Your task to perform on an android device: open sync settings in chrome Image 0: 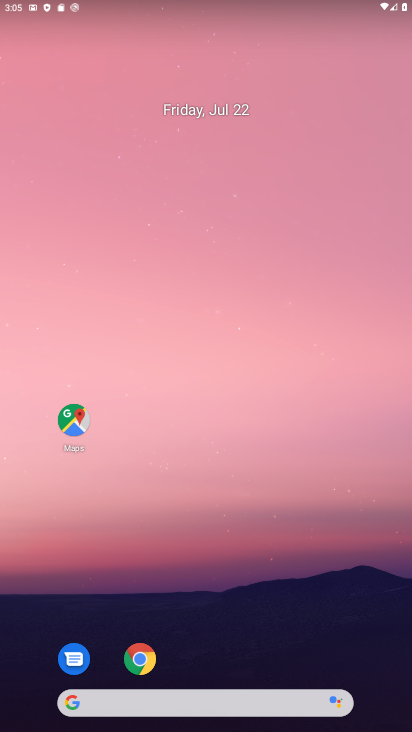
Step 0: click (146, 669)
Your task to perform on an android device: open sync settings in chrome Image 1: 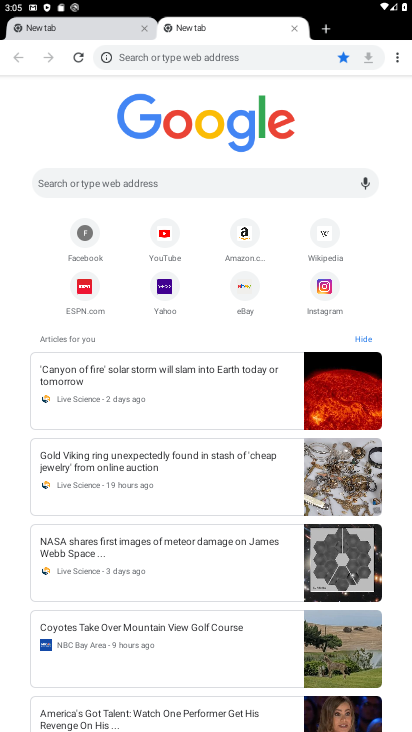
Step 1: click (401, 53)
Your task to perform on an android device: open sync settings in chrome Image 2: 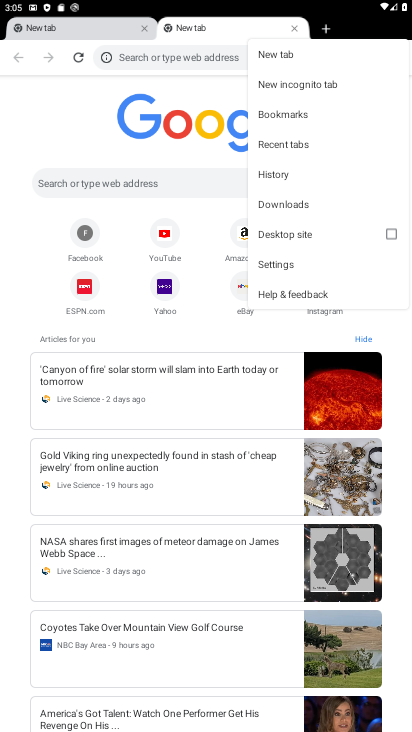
Step 2: click (319, 258)
Your task to perform on an android device: open sync settings in chrome Image 3: 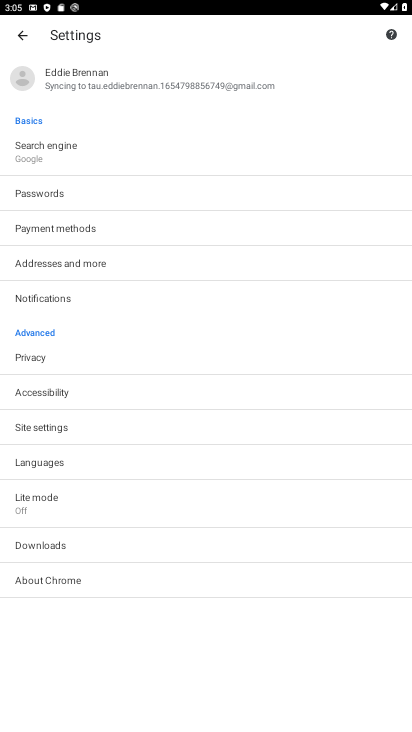
Step 3: click (113, 74)
Your task to perform on an android device: open sync settings in chrome Image 4: 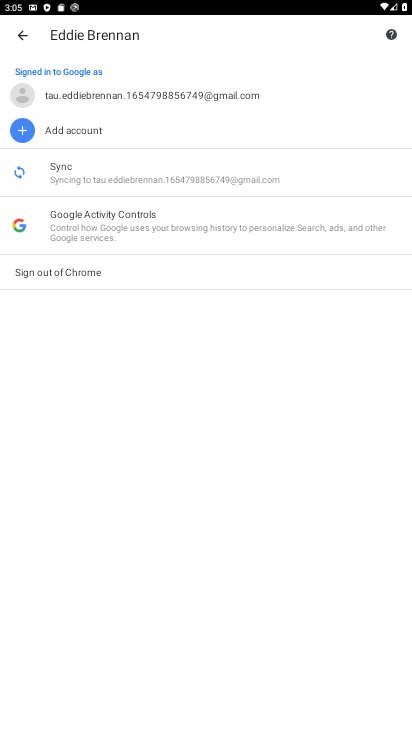
Step 4: click (111, 174)
Your task to perform on an android device: open sync settings in chrome Image 5: 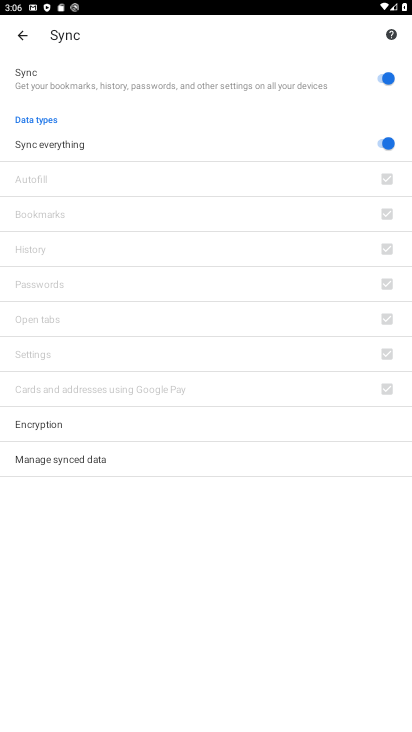
Step 5: task complete